Your task to perform on an android device: delete browsing data in the chrome app Image 0: 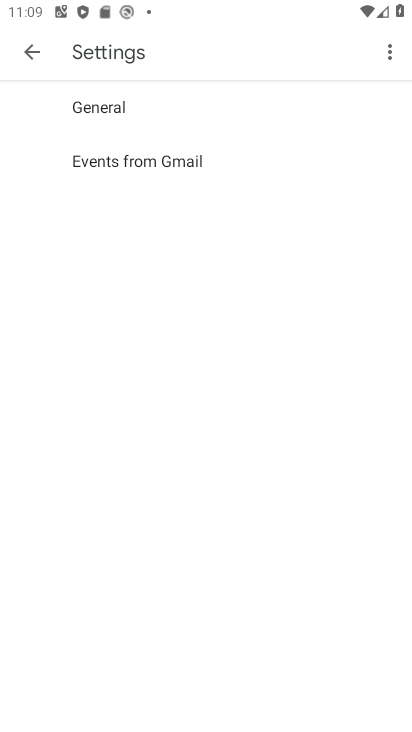
Step 0: press home button
Your task to perform on an android device: delete browsing data in the chrome app Image 1: 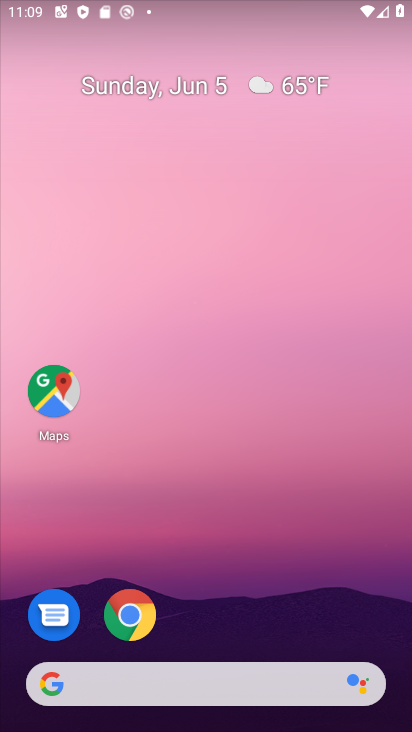
Step 1: click (129, 621)
Your task to perform on an android device: delete browsing data in the chrome app Image 2: 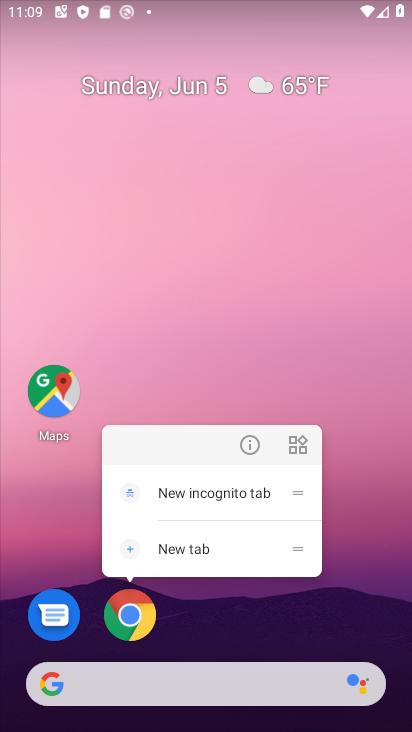
Step 2: click (125, 622)
Your task to perform on an android device: delete browsing data in the chrome app Image 3: 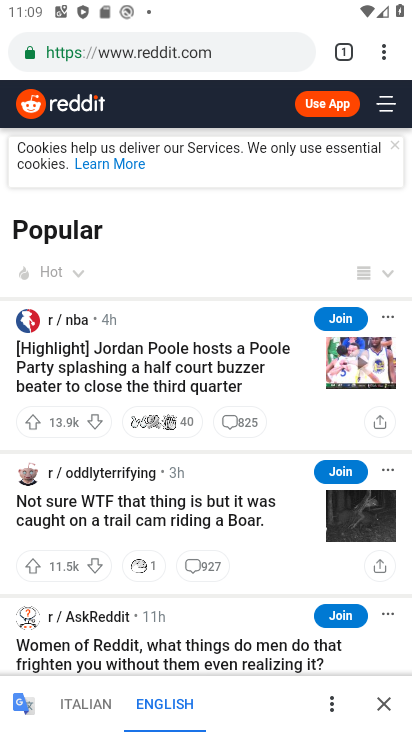
Step 3: click (387, 51)
Your task to perform on an android device: delete browsing data in the chrome app Image 4: 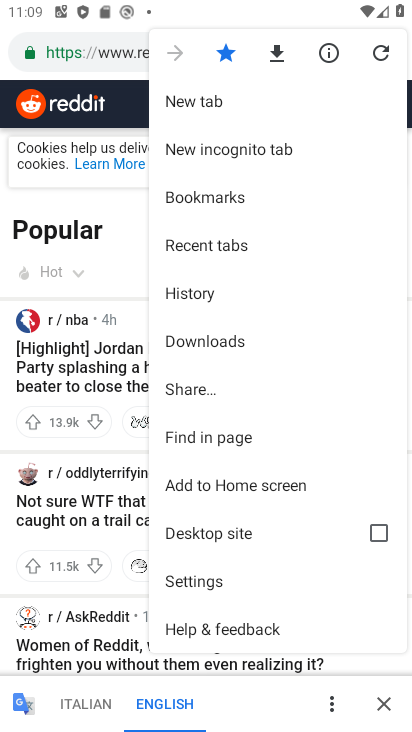
Step 4: click (202, 579)
Your task to perform on an android device: delete browsing data in the chrome app Image 5: 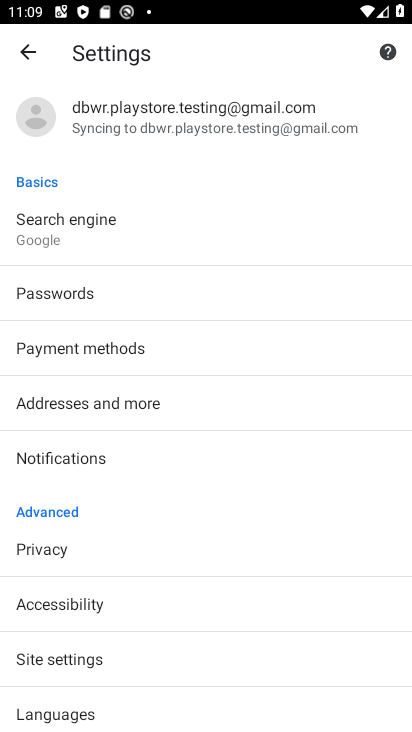
Step 5: click (61, 557)
Your task to perform on an android device: delete browsing data in the chrome app Image 6: 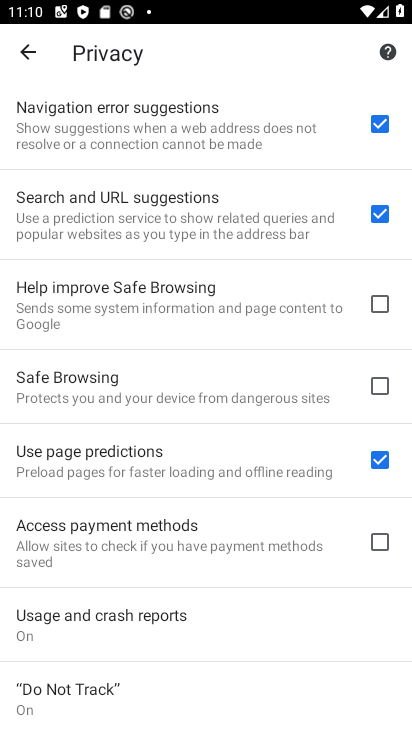
Step 6: drag from (181, 599) to (182, 171)
Your task to perform on an android device: delete browsing data in the chrome app Image 7: 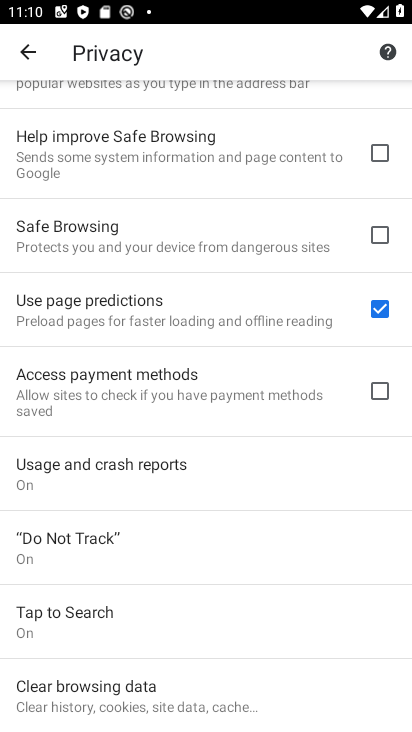
Step 7: click (81, 707)
Your task to perform on an android device: delete browsing data in the chrome app Image 8: 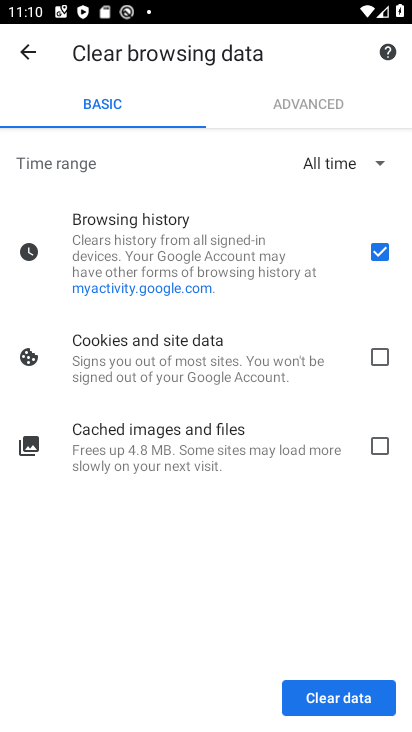
Step 8: click (299, 704)
Your task to perform on an android device: delete browsing data in the chrome app Image 9: 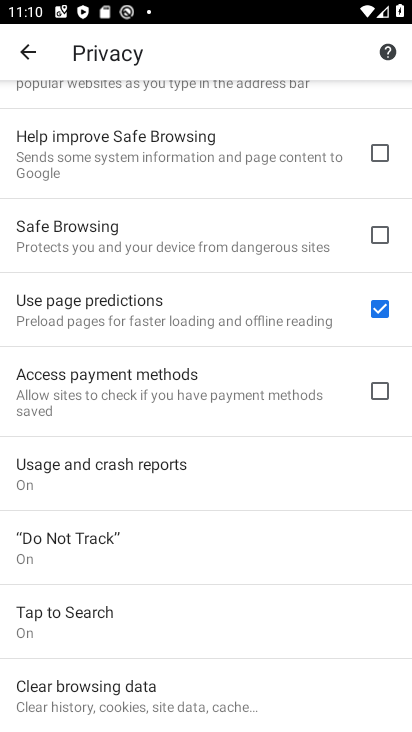
Step 9: task complete